Your task to perform on an android device: Open calendar and show me the third week of next month Image 0: 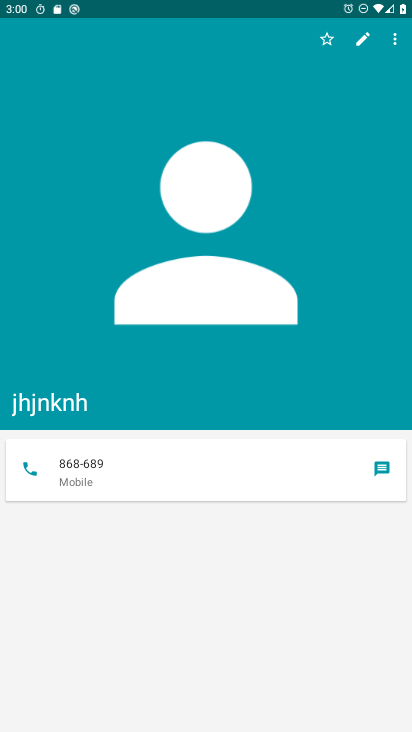
Step 0: drag from (213, 628) to (271, 229)
Your task to perform on an android device: Open calendar and show me the third week of next month Image 1: 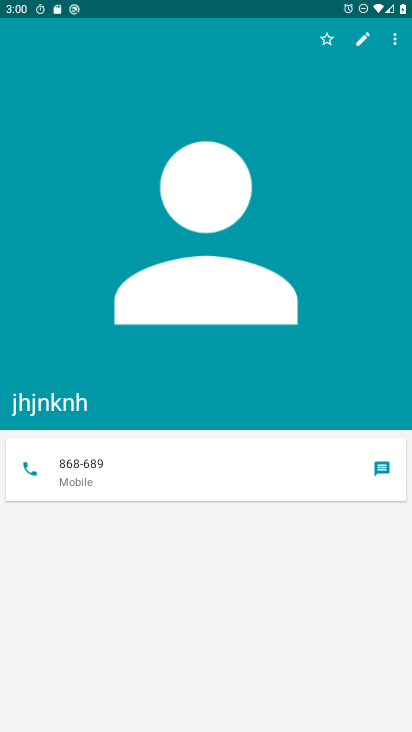
Step 1: press home button
Your task to perform on an android device: Open calendar and show me the third week of next month Image 2: 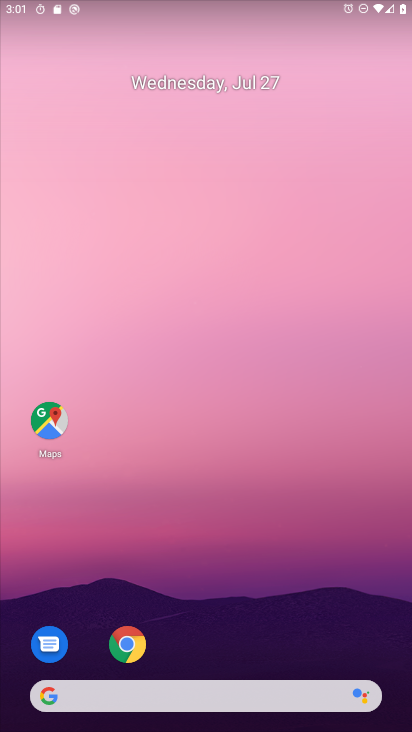
Step 2: drag from (200, 643) to (235, 365)
Your task to perform on an android device: Open calendar and show me the third week of next month Image 3: 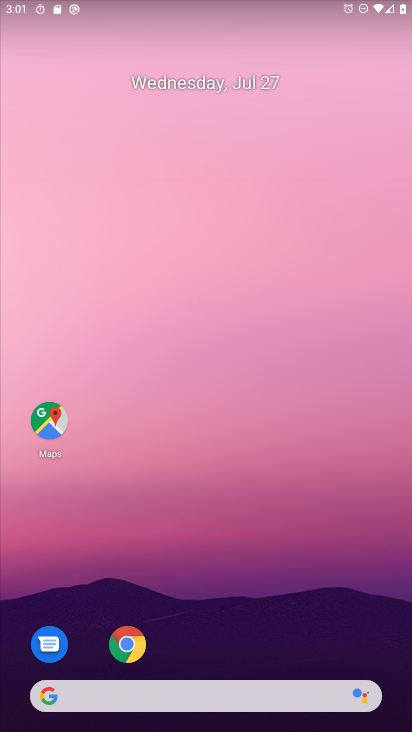
Step 3: drag from (191, 558) to (285, 35)
Your task to perform on an android device: Open calendar and show me the third week of next month Image 4: 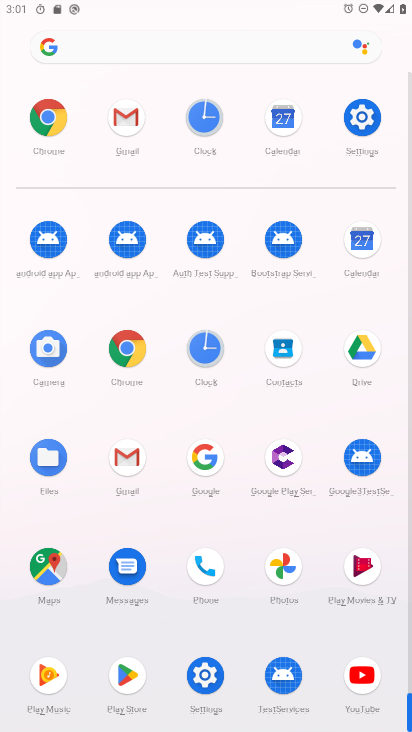
Step 4: click (360, 238)
Your task to perform on an android device: Open calendar and show me the third week of next month Image 5: 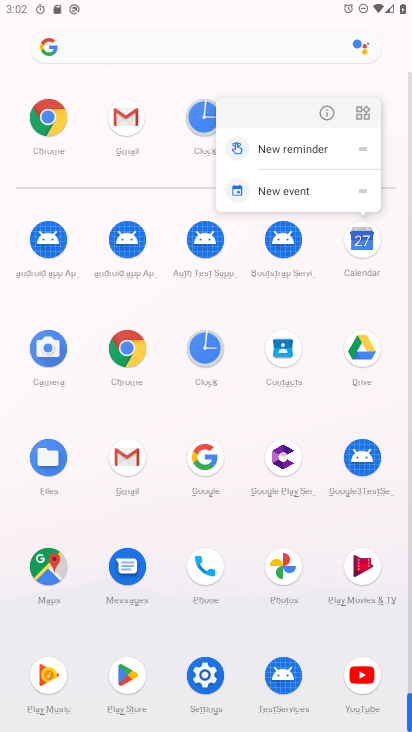
Step 5: drag from (181, 569) to (240, 126)
Your task to perform on an android device: Open calendar and show me the third week of next month Image 6: 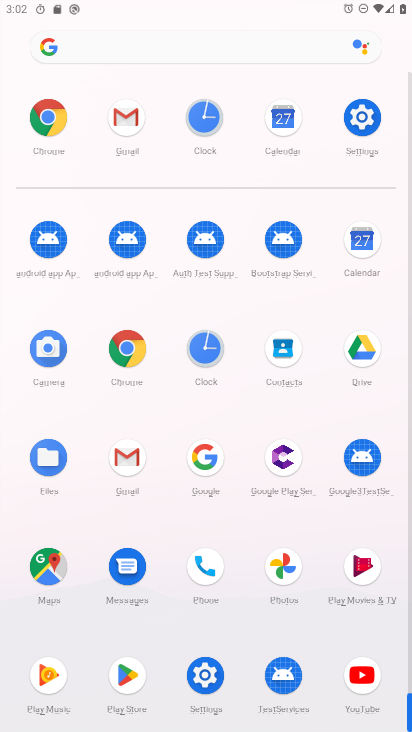
Step 6: click (360, 244)
Your task to perform on an android device: Open calendar and show me the third week of next month Image 7: 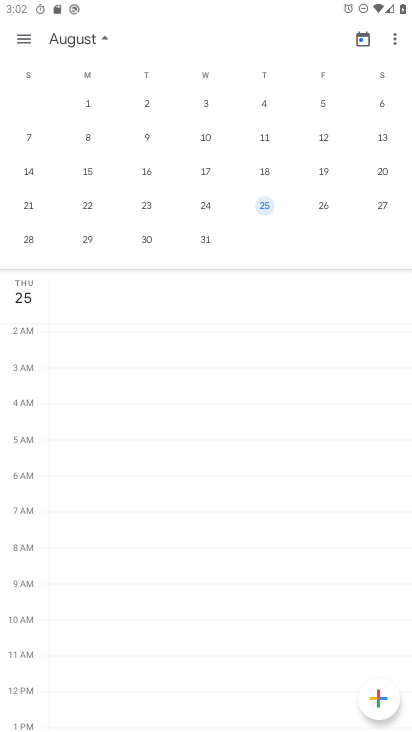
Step 7: click (94, 40)
Your task to perform on an android device: Open calendar and show me the third week of next month Image 8: 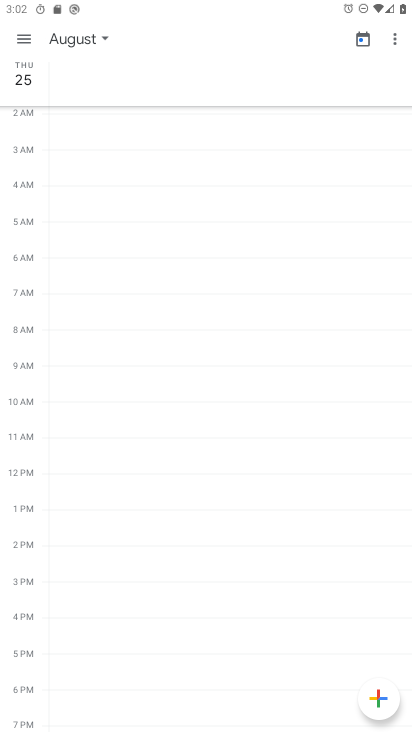
Step 8: click (84, 51)
Your task to perform on an android device: Open calendar and show me the third week of next month Image 9: 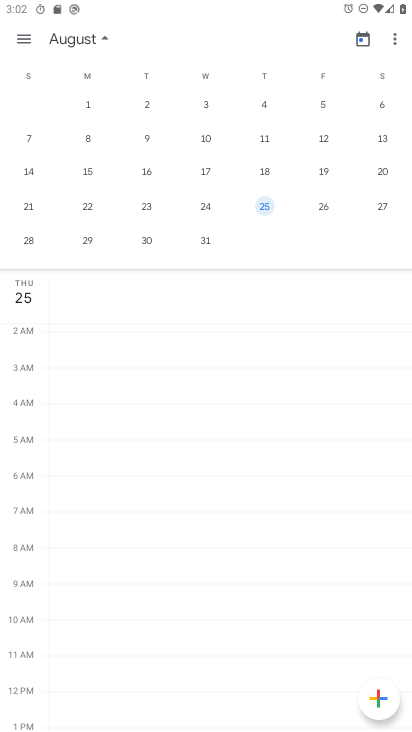
Step 9: click (197, 172)
Your task to perform on an android device: Open calendar and show me the third week of next month Image 10: 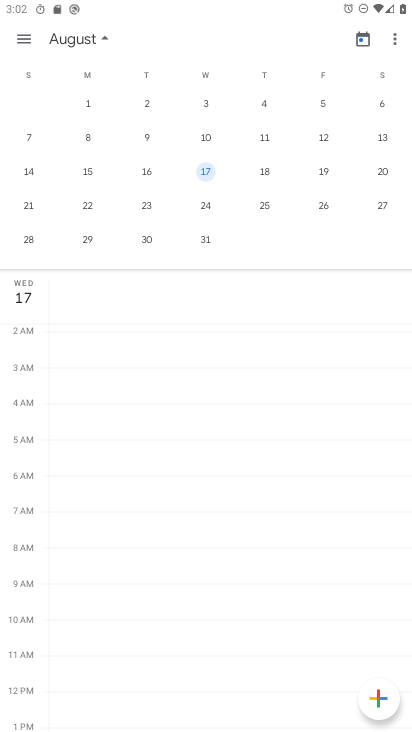
Step 10: task complete